Your task to perform on an android device: Do I have any events today? Image 0: 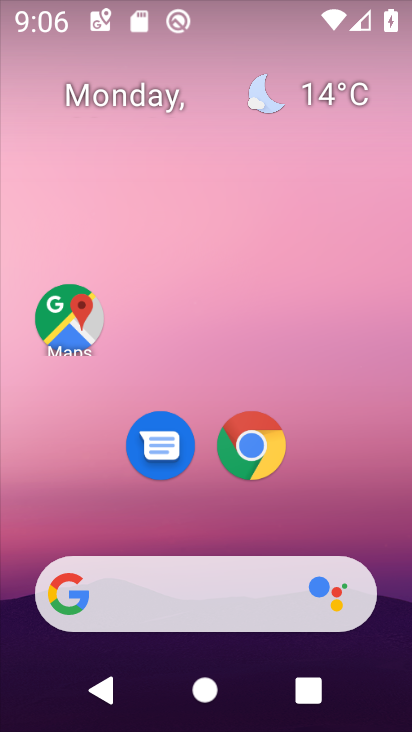
Step 0: drag from (208, 524) to (267, 54)
Your task to perform on an android device: Do I have any events today? Image 1: 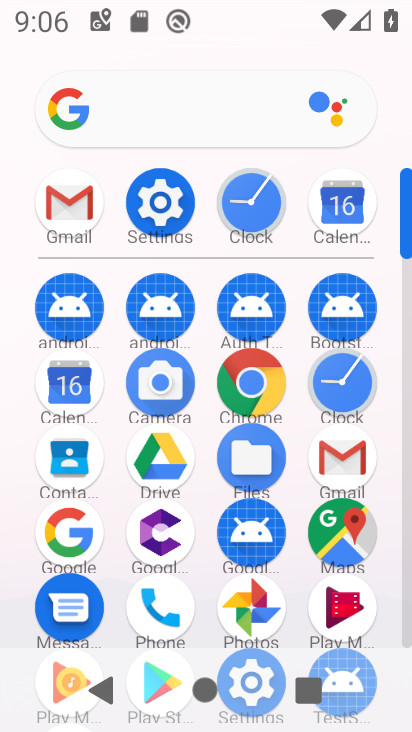
Step 1: press back button
Your task to perform on an android device: Do I have any events today? Image 2: 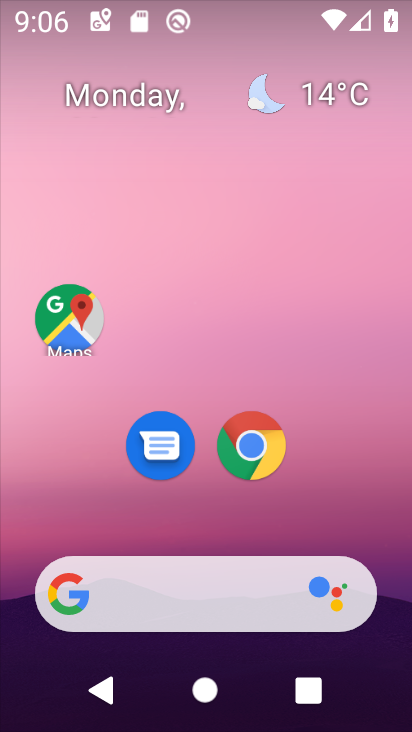
Step 2: drag from (36, 221) to (401, 252)
Your task to perform on an android device: Do I have any events today? Image 3: 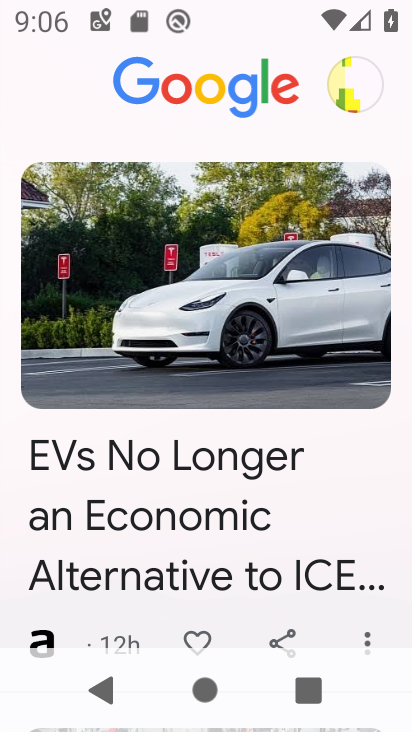
Step 3: drag from (162, 555) to (214, 125)
Your task to perform on an android device: Do I have any events today? Image 4: 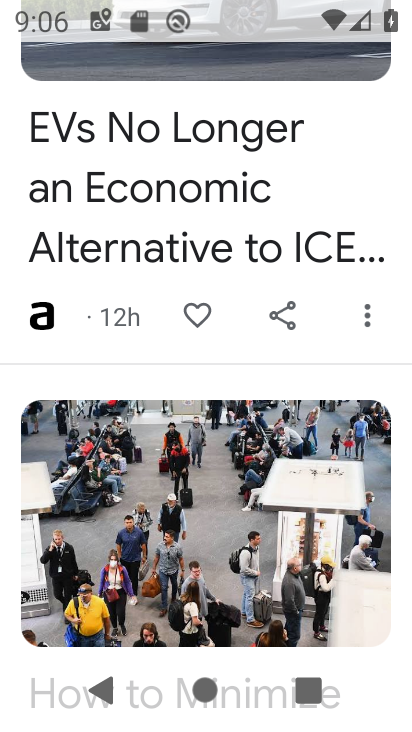
Step 4: drag from (179, 447) to (198, 41)
Your task to perform on an android device: Do I have any events today? Image 5: 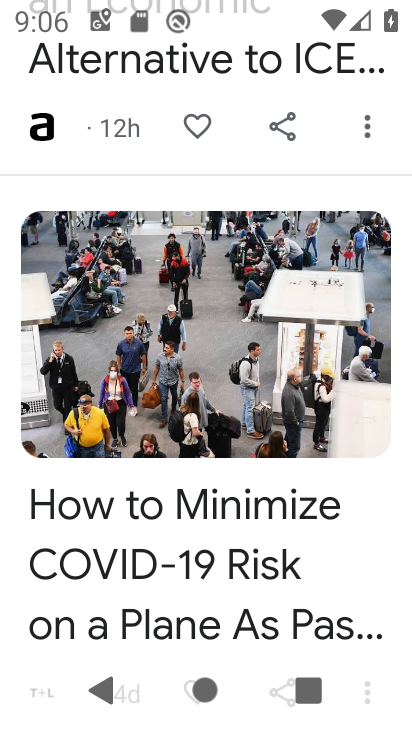
Step 5: click (192, 151)
Your task to perform on an android device: Do I have any events today? Image 6: 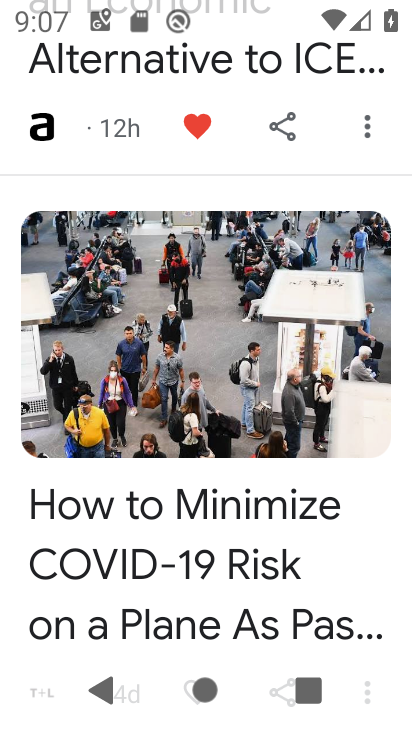
Step 6: task complete